Your task to perform on an android device: Search for pizza restaurants on Maps Image 0: 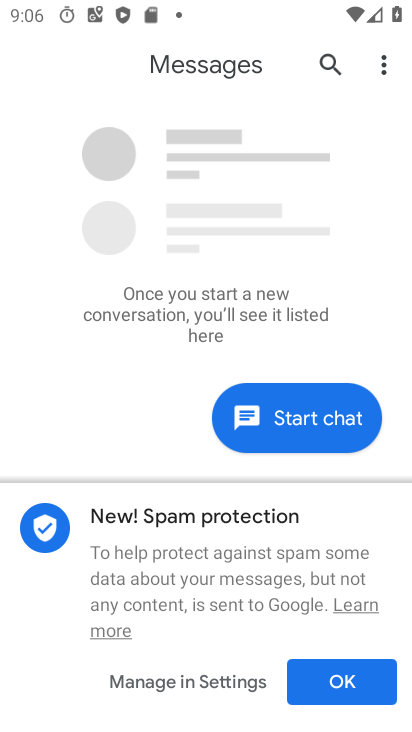
Step 0: press back button
Your task to perform on an android device: Search for pizza restaurants on Maps Image 1: 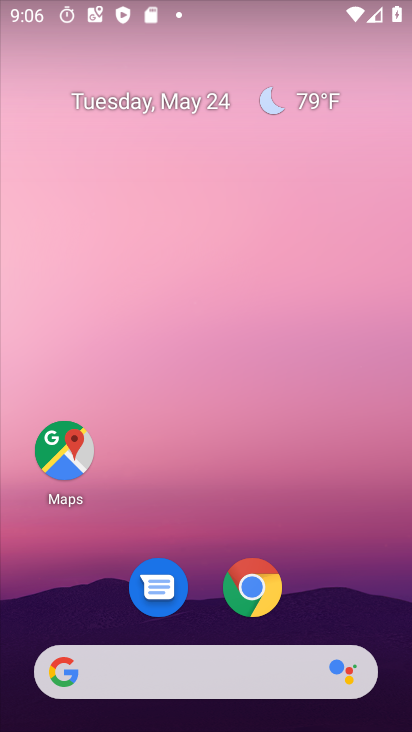
Step 1: click (63, 452)
Your task to perform on an android device: Search for pizza restaurants on Maps Image 2: 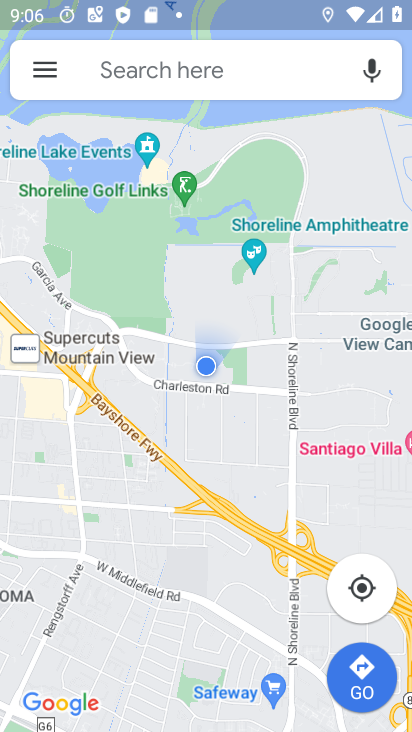
Step 2: click (174, 66)
Your task to perform on an android device: Search for pizza restaurants on Maps Image 3: 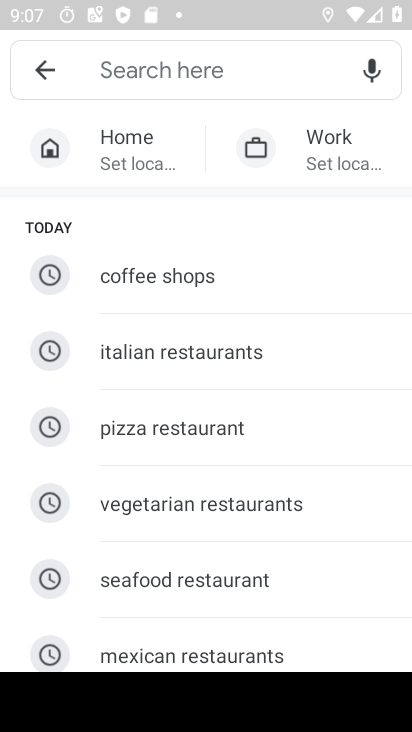
Step 3: type "pizza restaurants"
Your task to perform on an android device: Search for pizza restaurants on Maps Image 4: 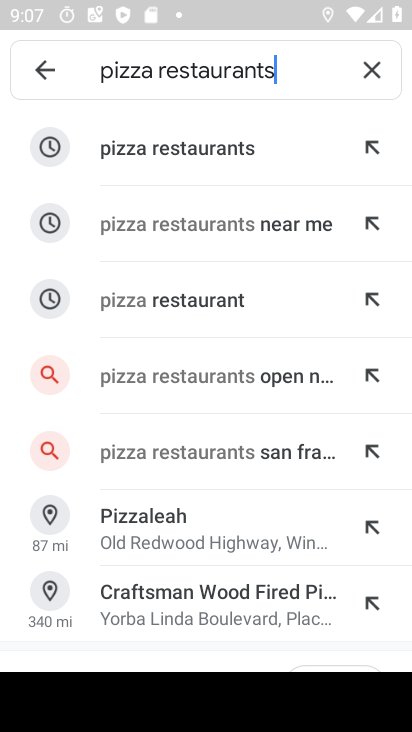
Step 4: click (196, 146)
Your task to perform on an android device: Search for pizza restaurants on Maps Image 5: 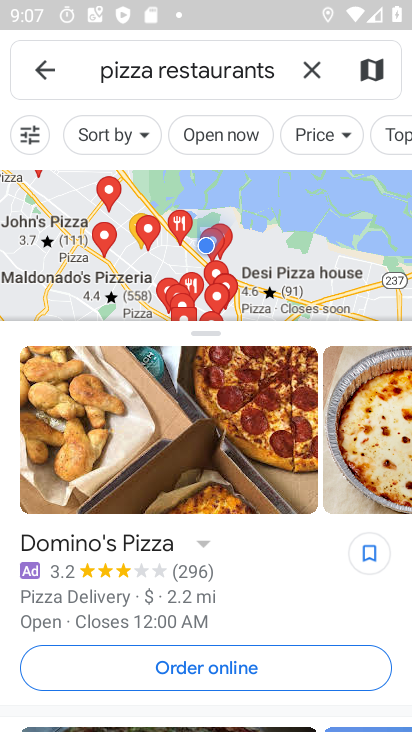
Step 5: task complete